Your task to perform on an android device: Check the weather Image 0: 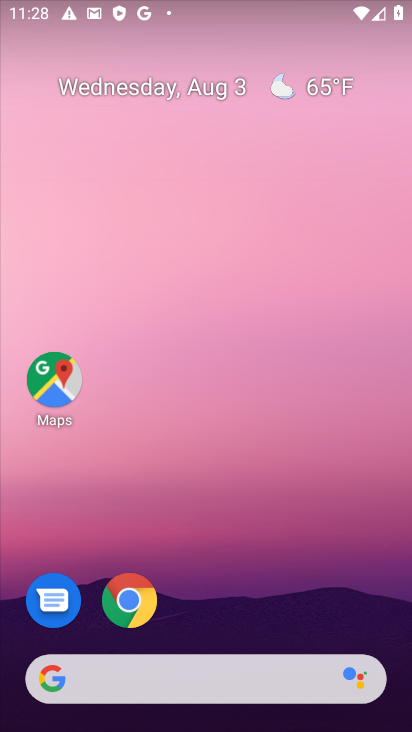
Step 0: click (203, 655)
Your task to perform on an android device: Check the weather Image 1: 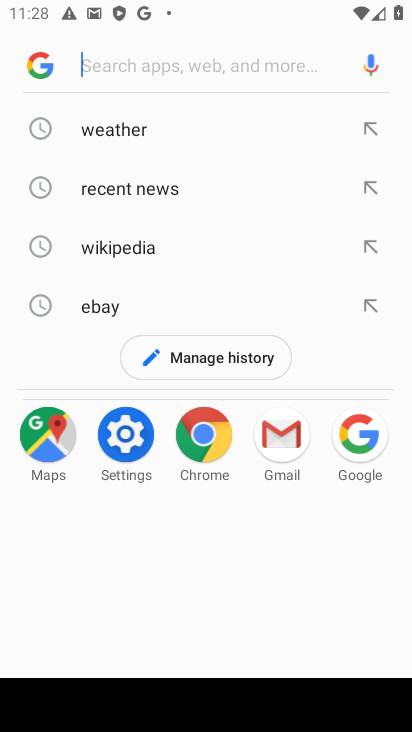
Step 1: click (106, 132)
Your task to perform on an android device: Check the weather Image 2: 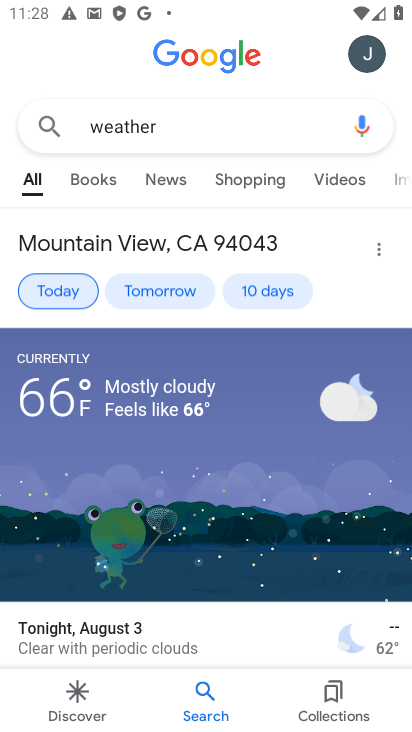
Step 2: task complete